Your task to perform on an android device: set the timer Image 0: 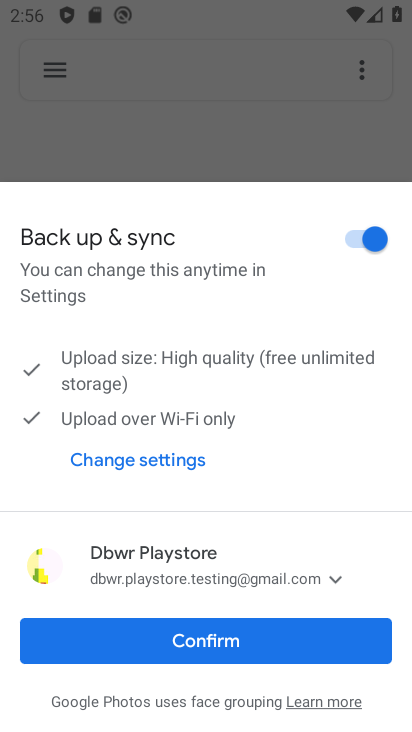
Step 0: press home button
Your task to perform on an android device: set the timer Image 1: 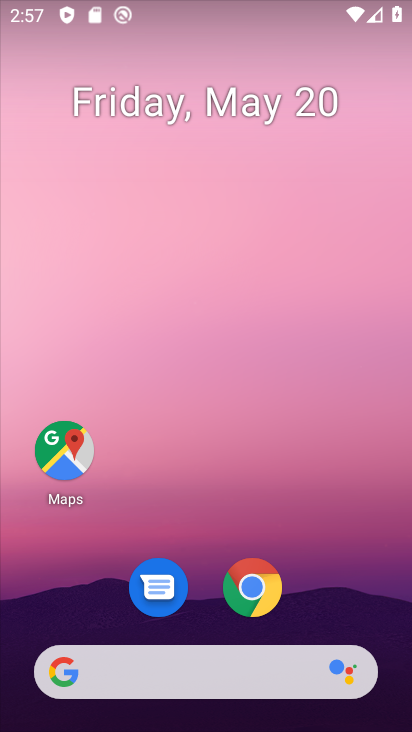
Step 1: drag from (333, 607) to (263, 172)
Your task to perform on an android device: set the timer Image 2: 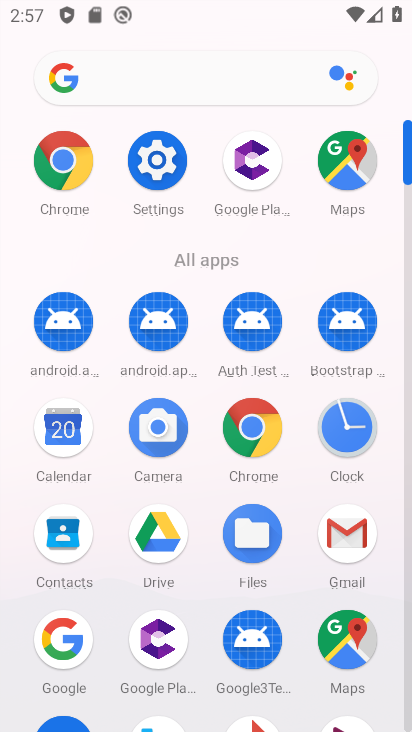
Step 2: click (342, 442)
Your task to perform on an android device: set the timer Image 3: 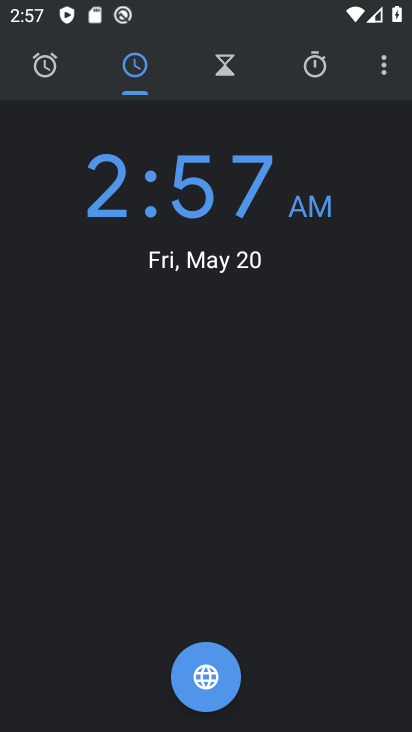
Step 3: click (241, 72)
Your task to perform on an android device: set the timer Image 4: 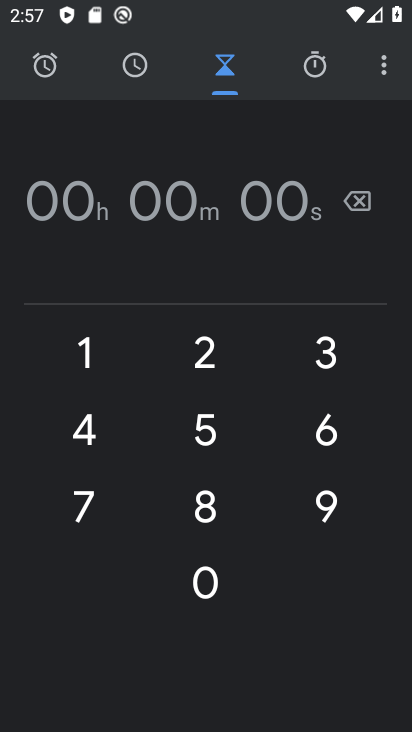
Step 4: type "10000"
Your task to perform on an android device: set the timer Image 5: 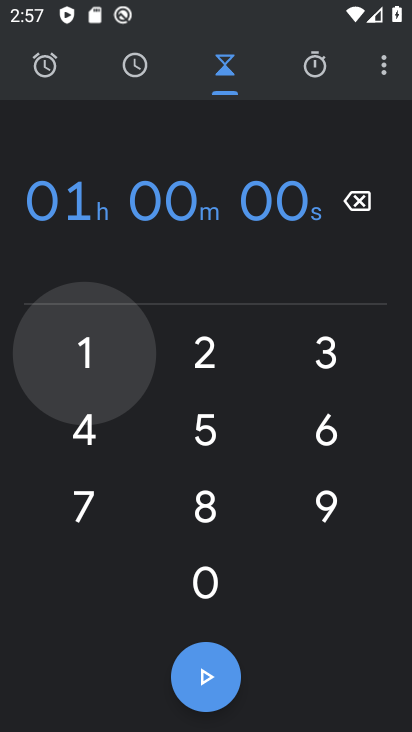
Step 5: click (221, 699)
Your task to perform on an android device: set the timer Image 6: 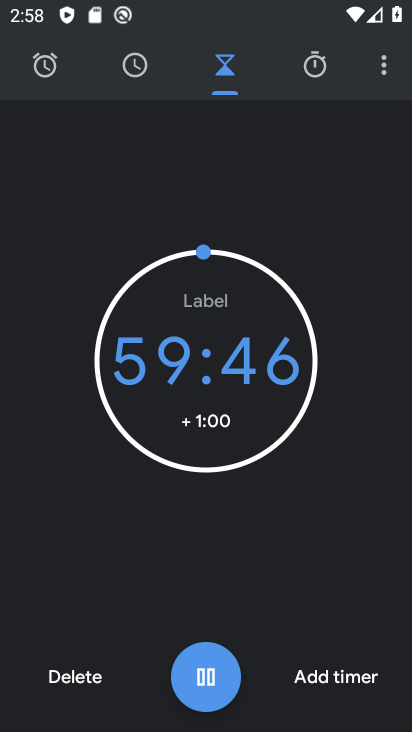
Step 6: task complete